Your task to perform on an android device: Open Chrome and go to the settings page Image 0: 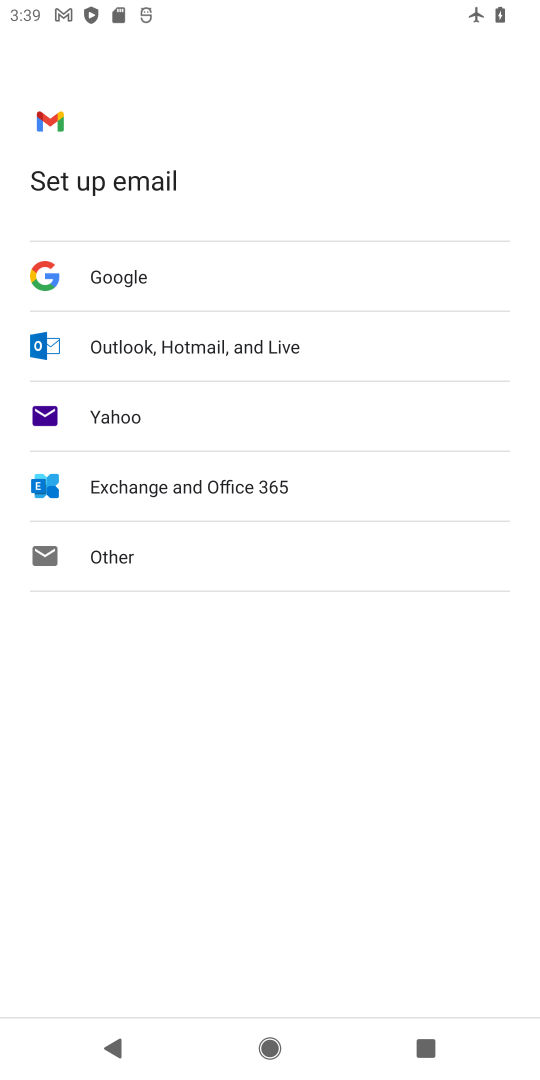
Step 0: press home button
Your task to perform on an android device: Open Chrome and go to the settings page Image 1: 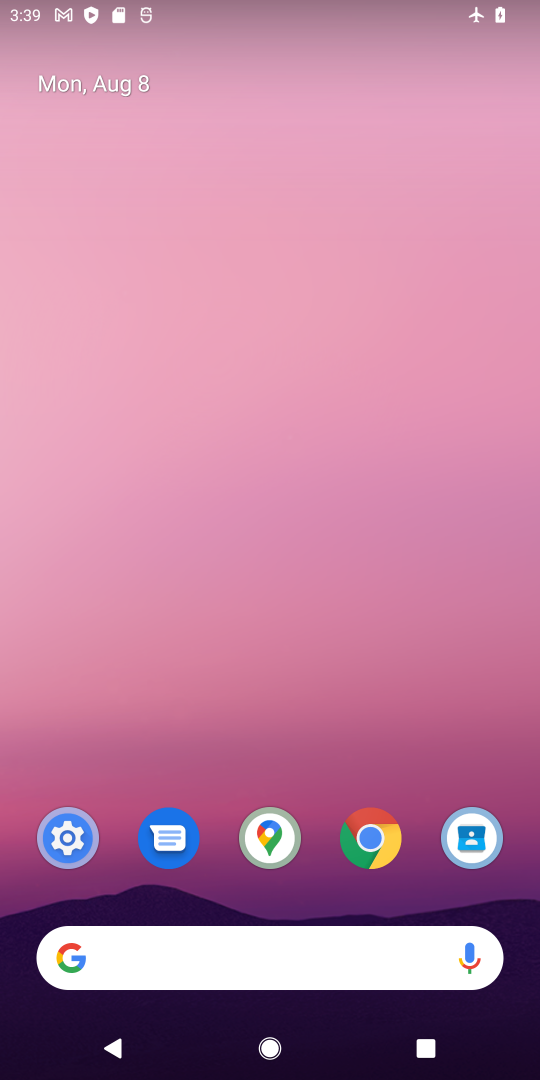
Step 1: click (368, 846)
Your task to perform on an android device: Open Chrome and go to the settings page Image 2: 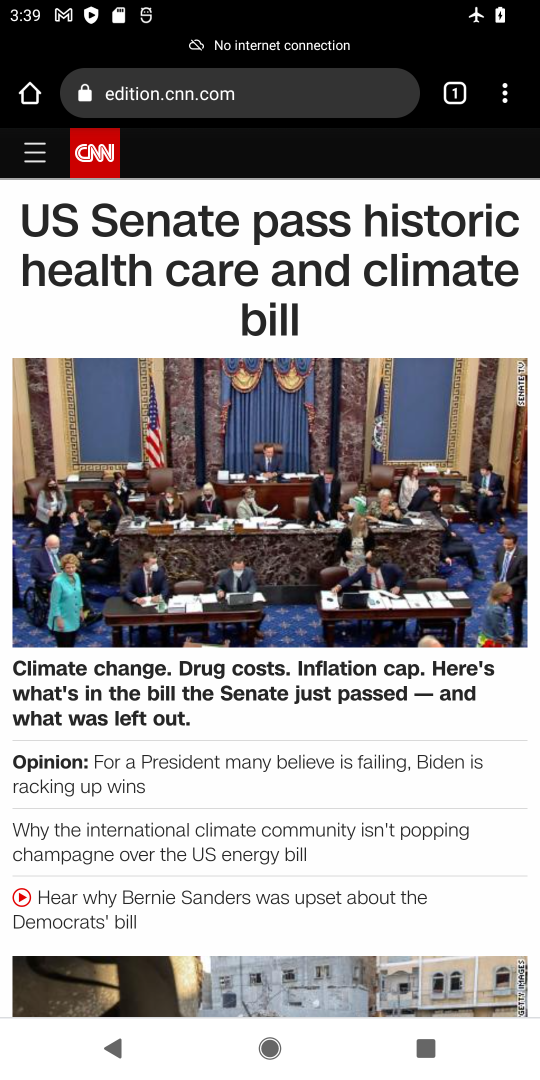
Step 2: click (507, 93)
Your task to perform on an android device: Open Chrome and go to the settings page Image 3: 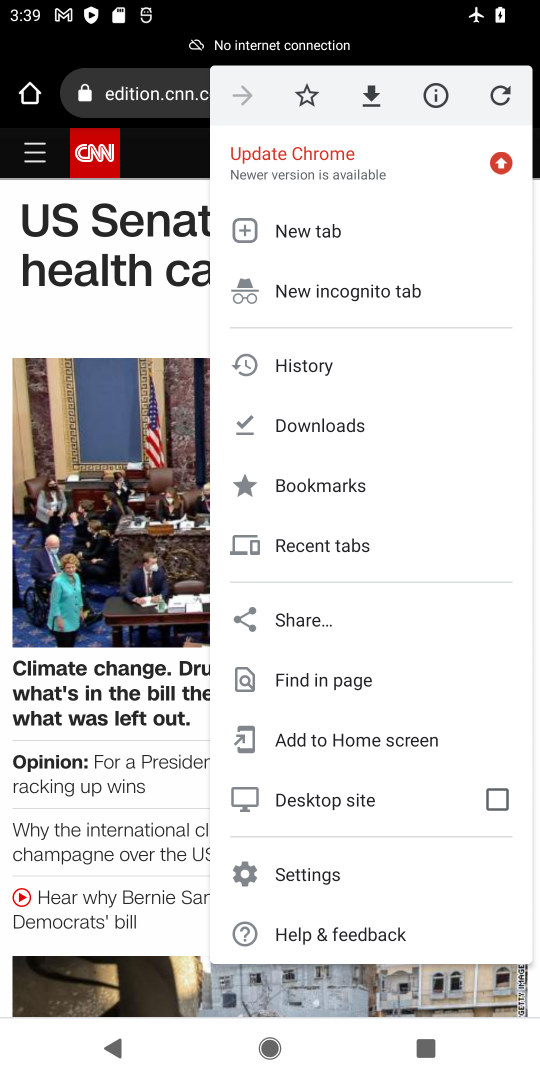
Step 3: click (316, 876)
Your task to perform on an android device: Open Chrome and go to the settings page Image 4: 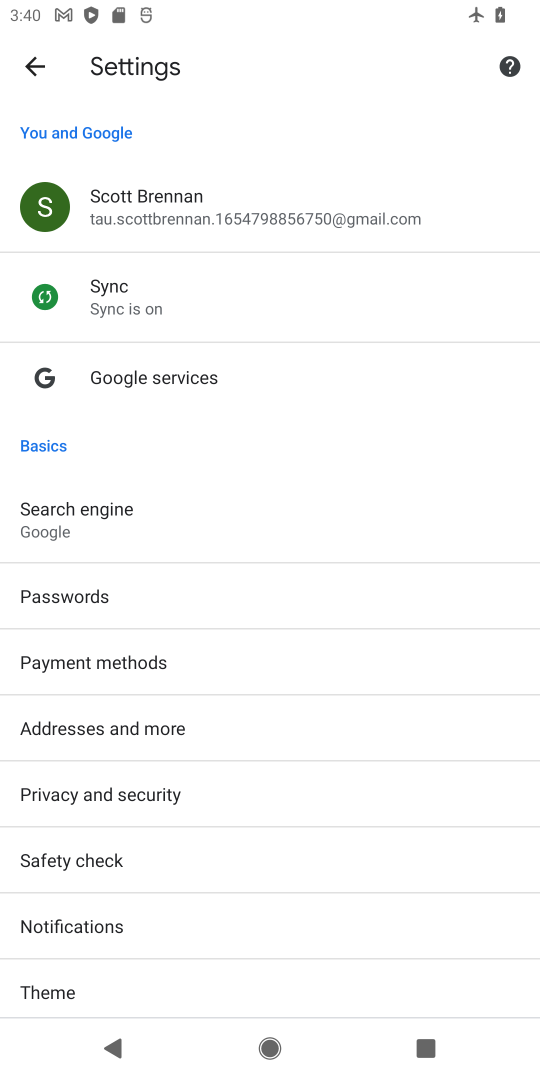
Step 4: task complete